Your task to perform on an android device: Open ESPN.com Image 0: 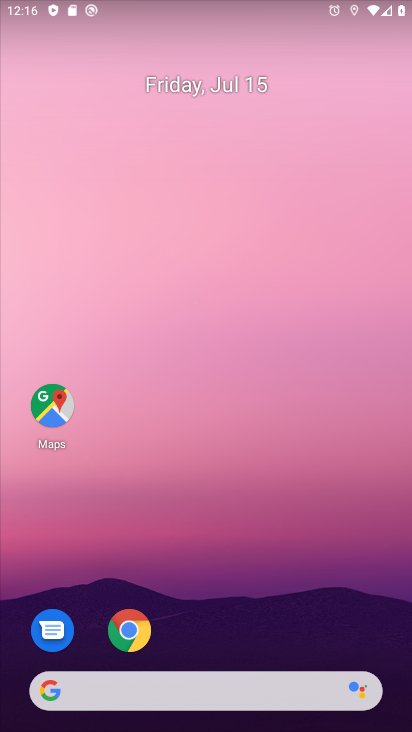
Step 0: click (134, 627)
Your task to perform on an android device: Open ESPN.com Image 1: 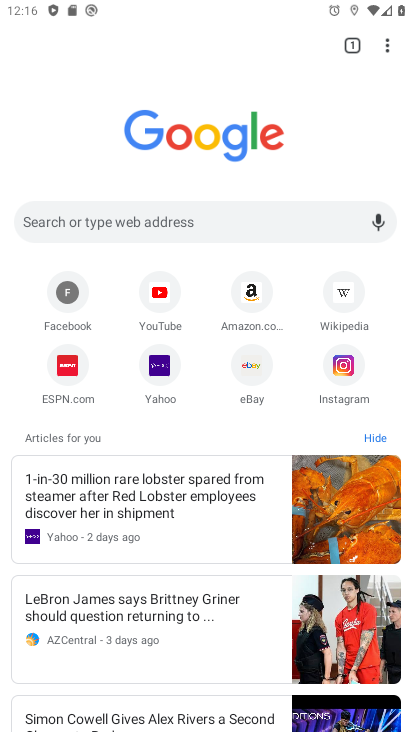
Step 1: click (80, 387)
Your task to perform on an android device: Open ESPN.com Image 2: 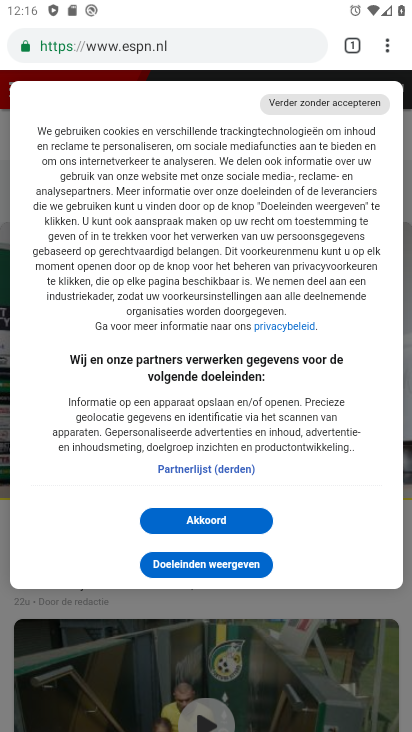
Step 2: task complete